Your task to perform on an android device: Is it going to rain this weekend? Image 0: 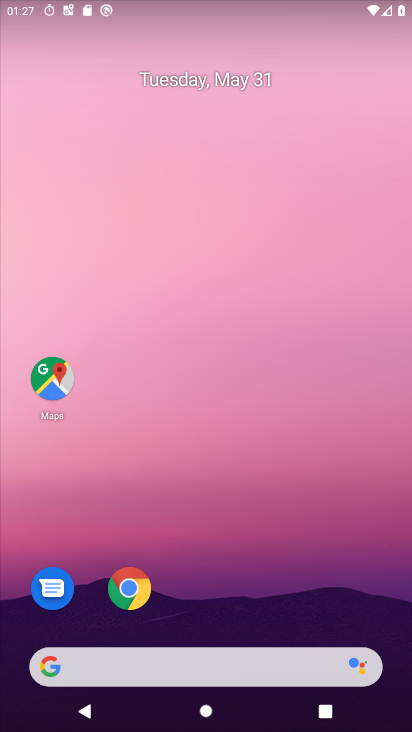
Step 0: drag from (300, 655) to (282, 16)
Your task to perform on an android device: Is it going to rain this weekend? Image 1: 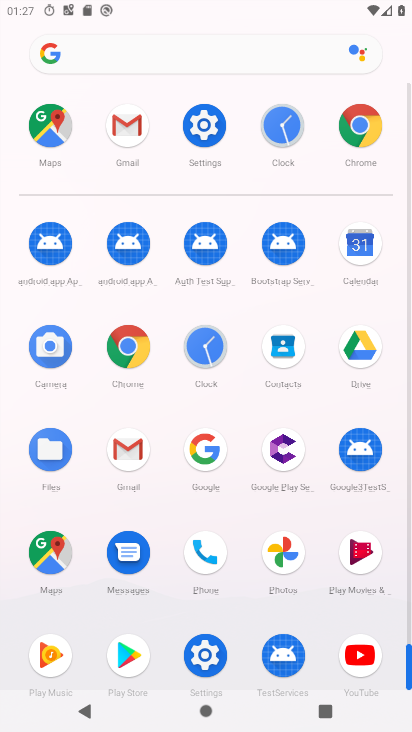
Step 1: click (368, 232)
Your task to perform on an android device: Is it going to rain this weekend? Image 2: 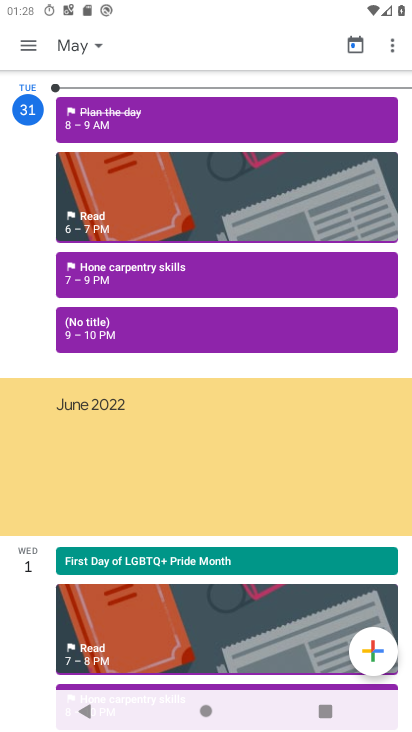
Step 2: click (99, 47)
Your task to perform on an android device: Is it going to rain this weekend? Image 3: 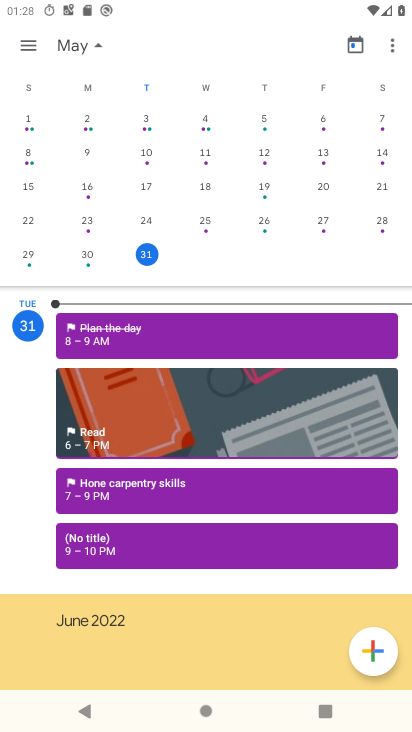
Step 3: drag from (345, 184) to (80, 201)
Your task to perform on an android device: Is it going to rain this weekend? Image 4: 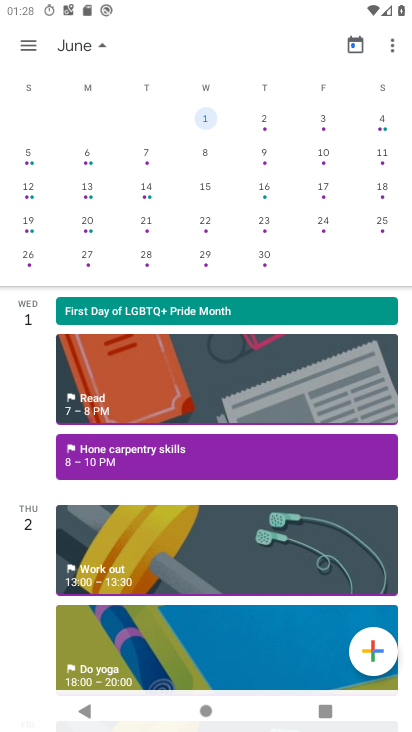
Step 4: click (383, 116)
Your task to perform on an android device: Is it going to rain this weekend? Image 5: 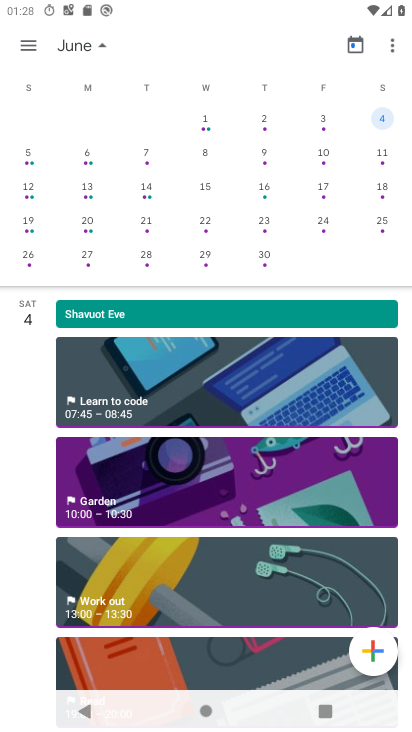
Step 5: task complete